Your task to perform on an android device: Show me recent news Image 0: 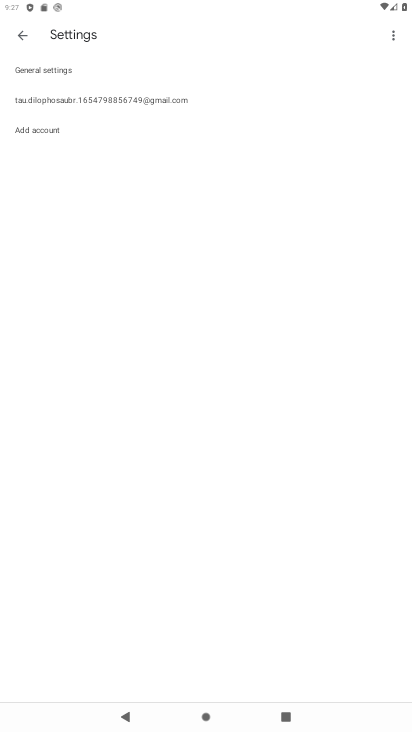
Step 0: press home button
Your task to perform on an android device: Show me recent news Image 1: 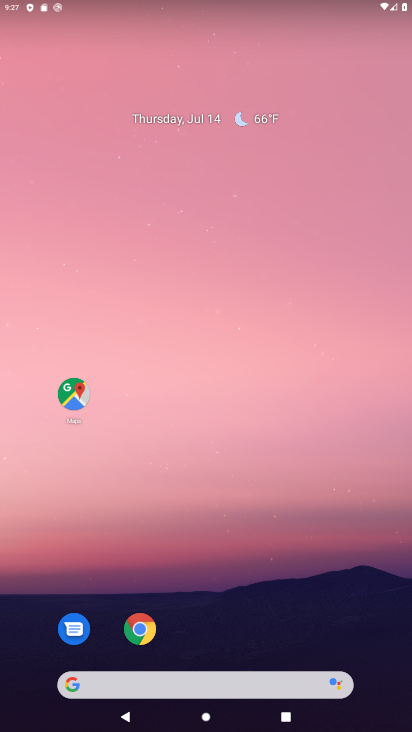
Step 1: click (73, 687)
Your task to perform on an android device: Show me recent news Image 2: 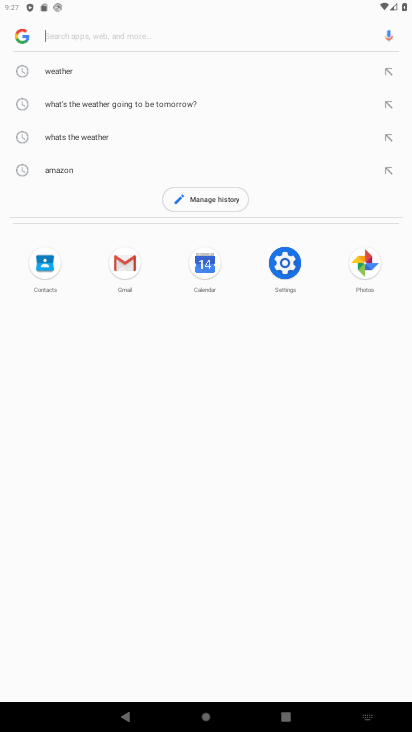
Step 2: type "recent news"
Your task to perform on an android device: Show me recent news Image 3: 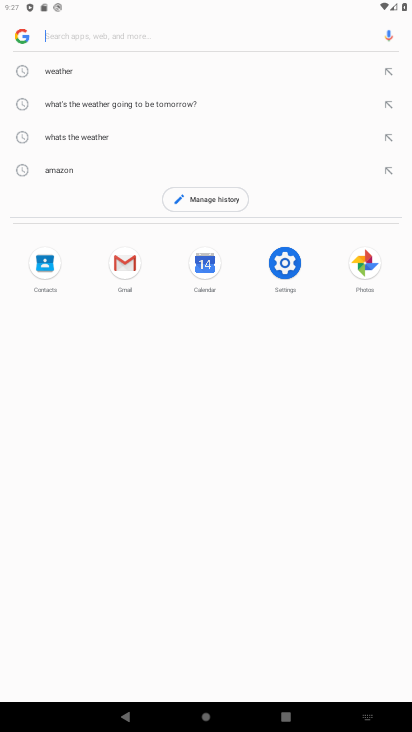
Step 3: click (57, 36)
Your task to perform on an android device: Show me recent news Image 4: 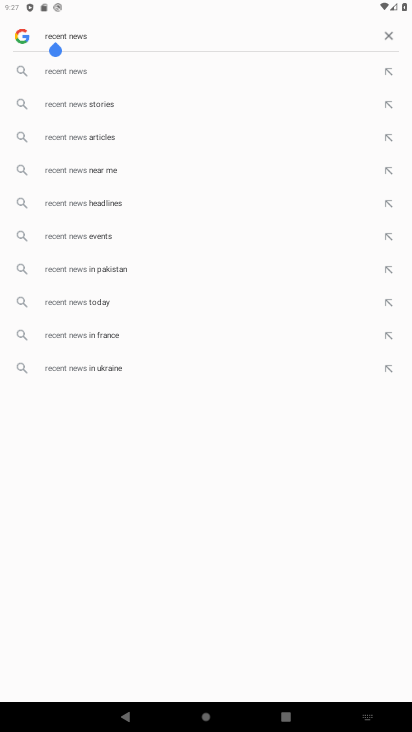
Step 4: press enter
Your task to perform on an android device: Show me recent news Image 5: 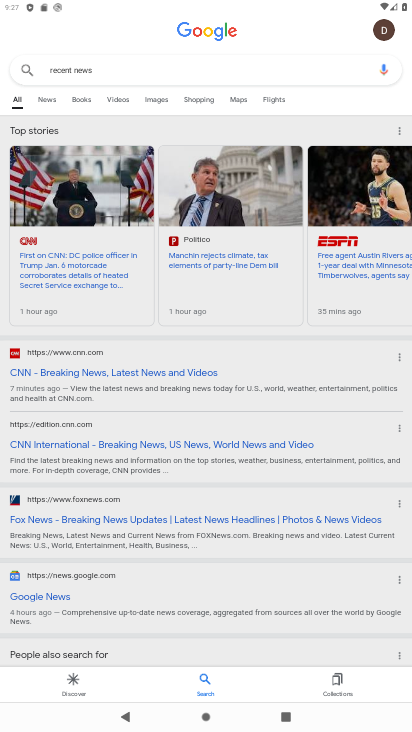
Step 5: task complete